Your task to perform on an android device: Open the stopwatch Image 0: 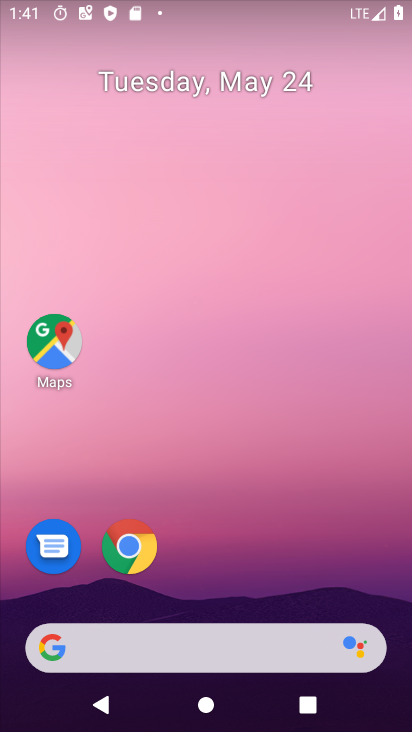
Step 0: drag from (140, 605) to (216, 134)
Your task to perform on an android device: Open the stopwatch Image 1: 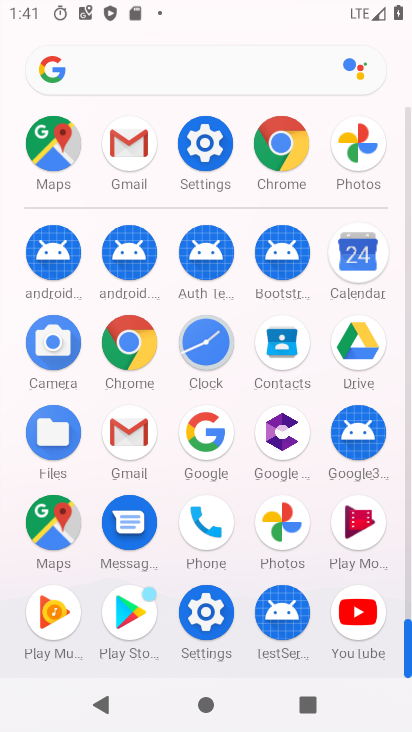
Step 1: click (195, 347)
Your task to perform on an android device: Open the stopwatch Image 2: 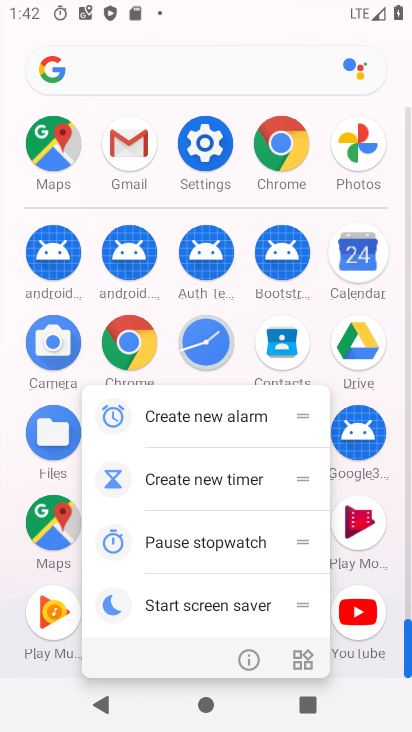
Step 2: click (246, 666)
Your task to perform on an android device: Open the stopwatch Image 3: 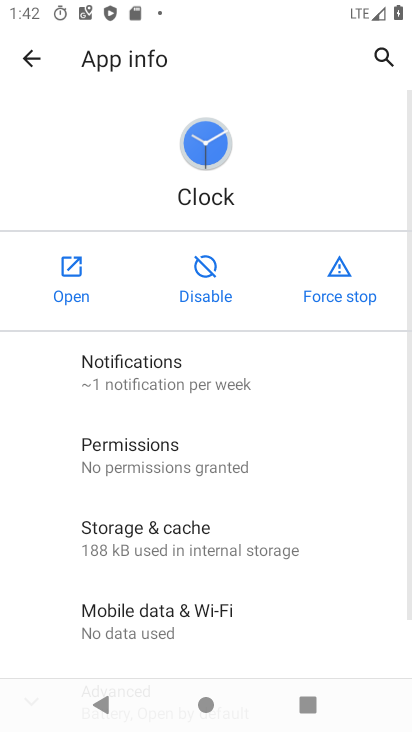
Step 3: click (57, 280)
Your task to perform on an android device: Open the stopwatch Image 4: 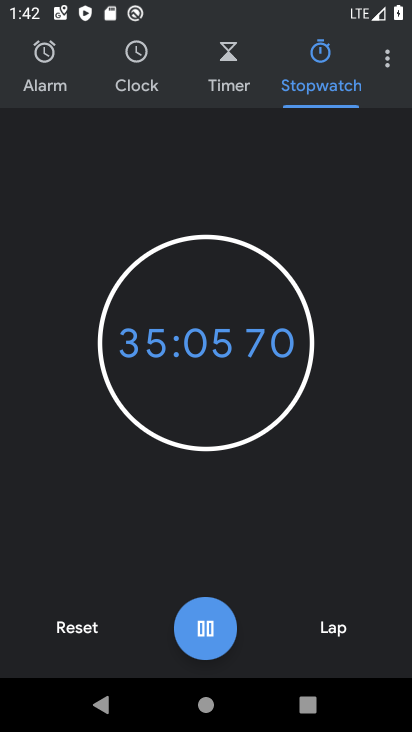
Step 4: click (224, 75)
Your task to perform on an android device: Open the stopwatch Image 5: 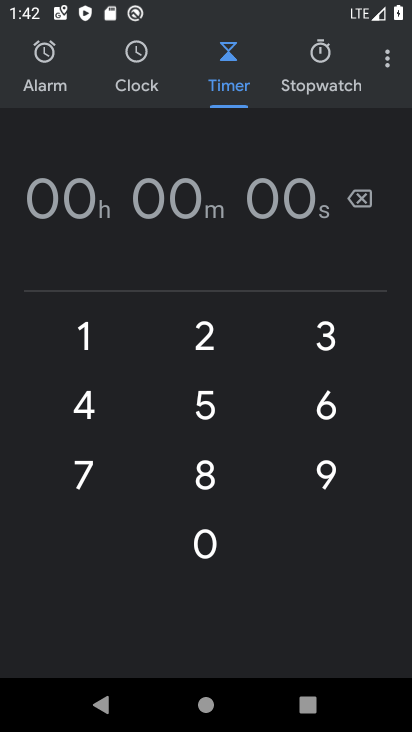
Step 5: click (315, 72)
Your task to perform on an android device: Open the stopwatch Image 6: 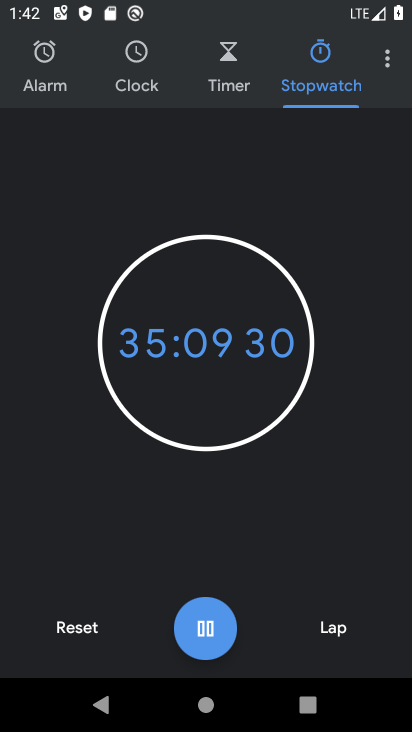
Step 6: click (99, 608)
Your task to perform on an android device: Open the stopwatch Image 7: 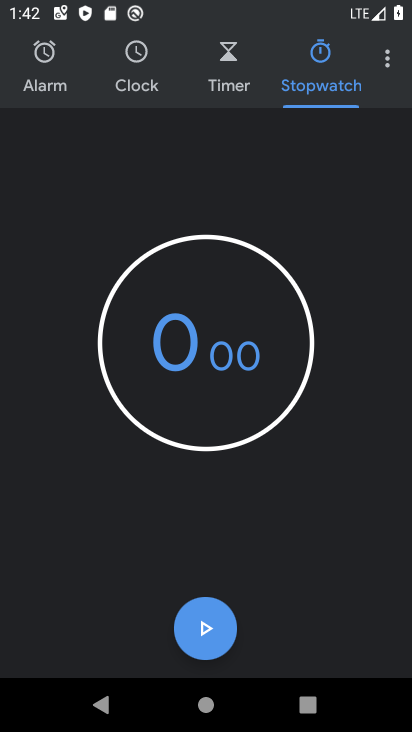
Step 7: task complete